Your task to perform on an android device: turn pop-ups off in chrome Image 0: 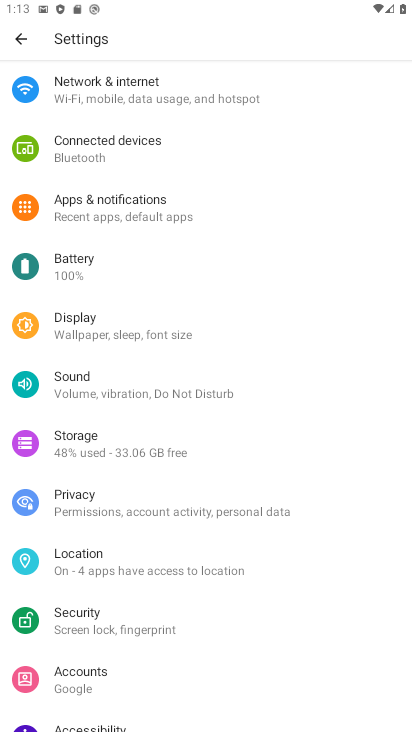
Step 0: press home button
Your task to perform on an android device: turn pop-ups off in chrome Image 1: 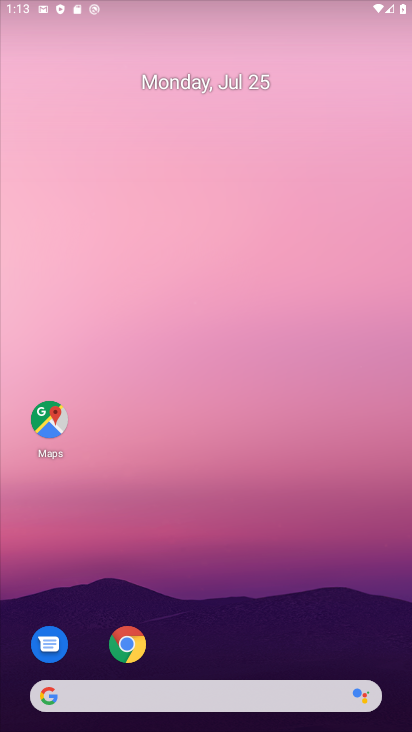
Step 1: drag from (319, 605) to (272, 89)
Your task to perform on an android device: turn pop-ups off in chrome Image 2: 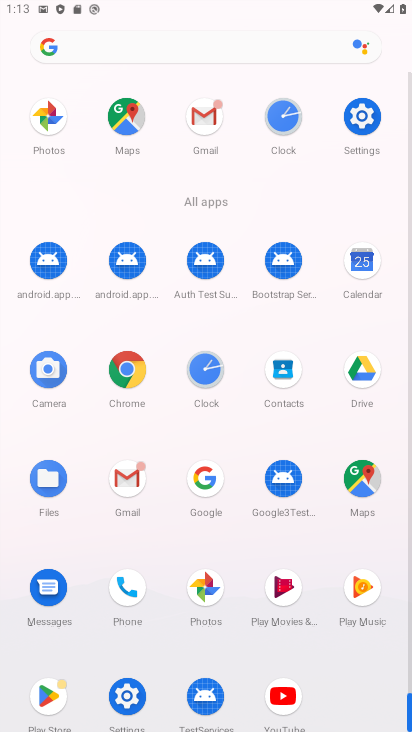
Step 2: click (125, 365)
Your task to perform on an android device: turn pop-ups off in chrome Image 3: 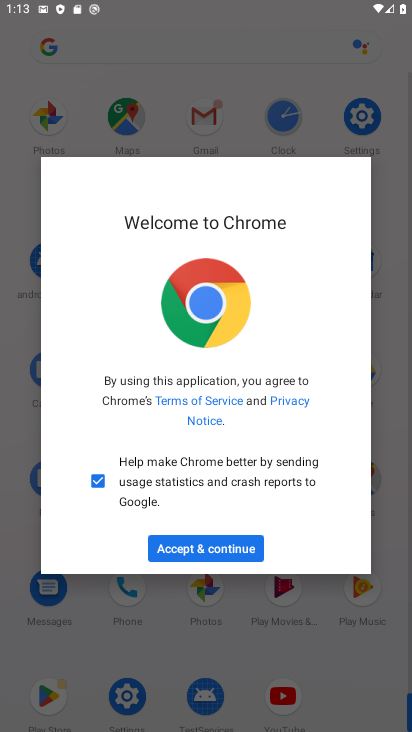
Step 3: click (202, 537)
Your task to perform on an android device: turn pop-ups off in chrome Image 4: 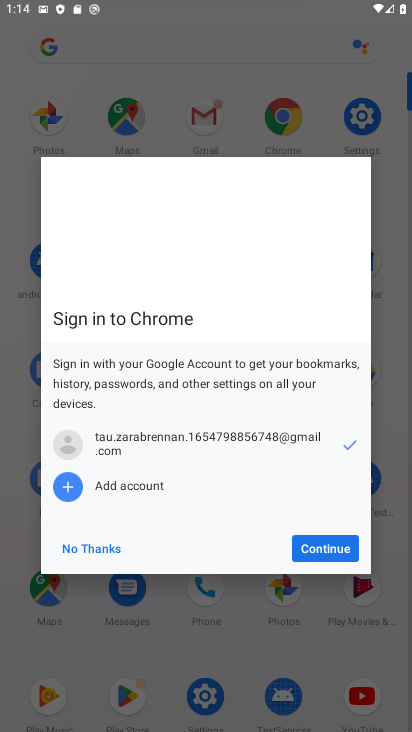
Step 4: click (330, 535)
Your task to perform on an android device: turn pop-ups off in chrome Image 5: 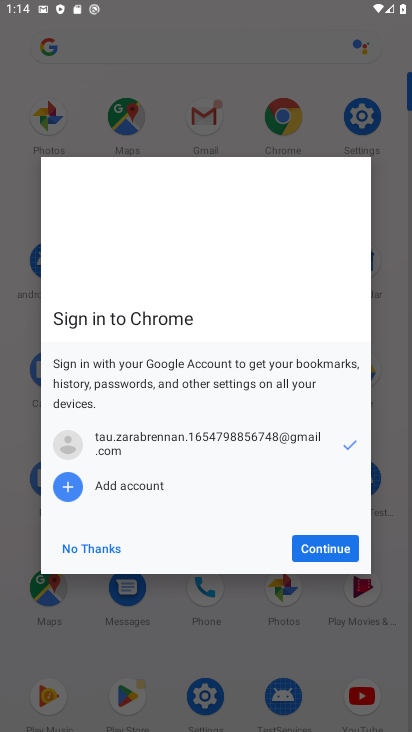
Step 5: click (352, 558)
Your task to perform on an android device: turn pop-ups off in chrome Image 6: 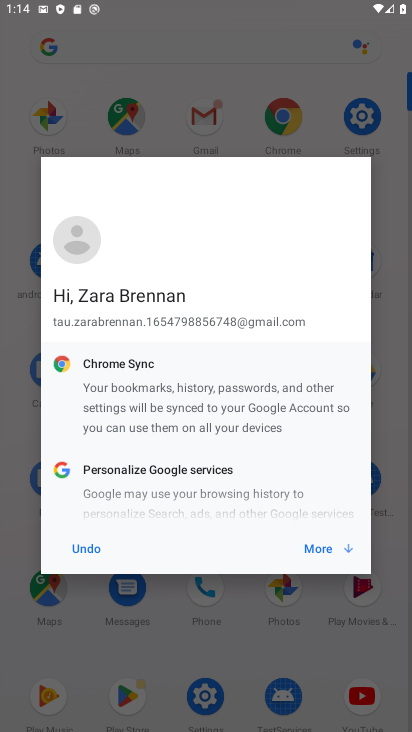
Step 6: click (344, 548)
Your task to perform on an android device: turn pop-ups off in chrome Image 7: 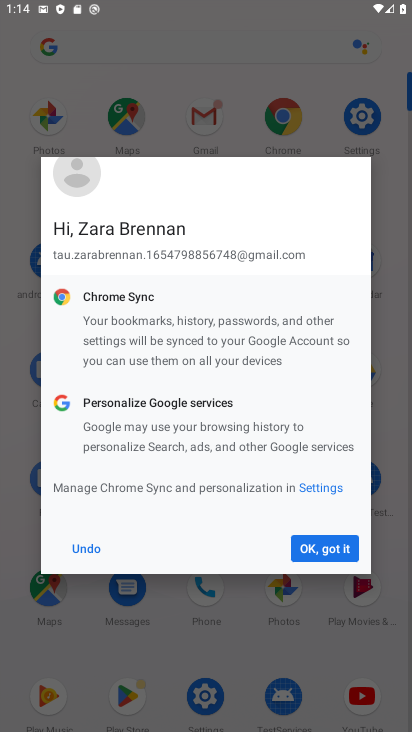
Step 7: click (320, 550)
Your task to perform on an android device: turn pop-ups off in chrome Image 8: 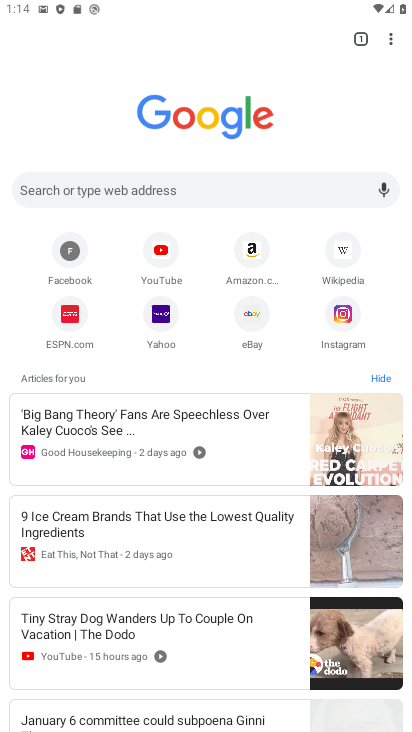
Step 8: drag from (392, 42) to (268, 324)
Your task to perform on an android device: turn pop-ups off in chrome Image 9: 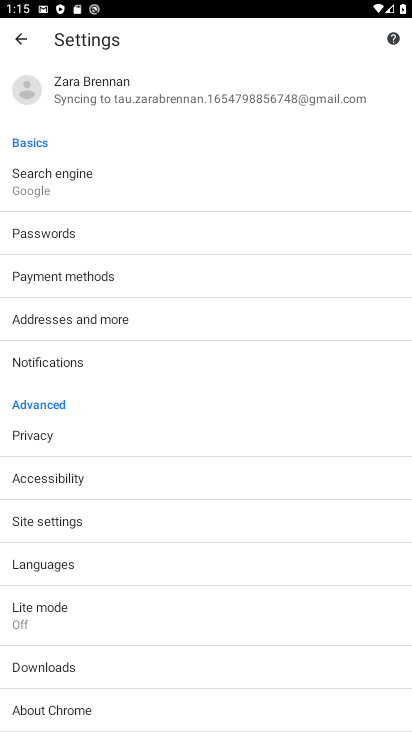
Step 9: click (74, 524)
Your task to perform on an android device: turn pop-ups off in chrome Image 10: 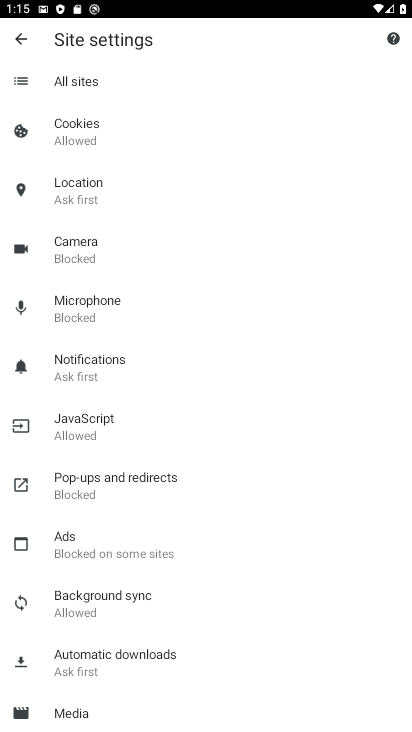
Step 10: click (111, 498)
Your task to perform on an android device: turn pop-ups off in chrome Image 11: 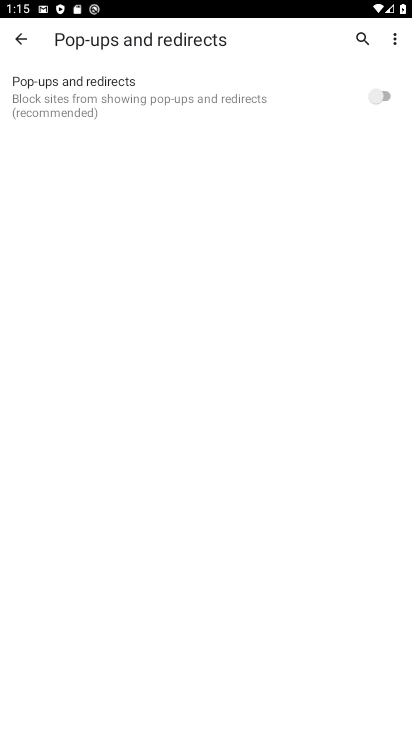
Step 11: task complete